Your task to perform on an android device: Go to CNN.com Image 0: 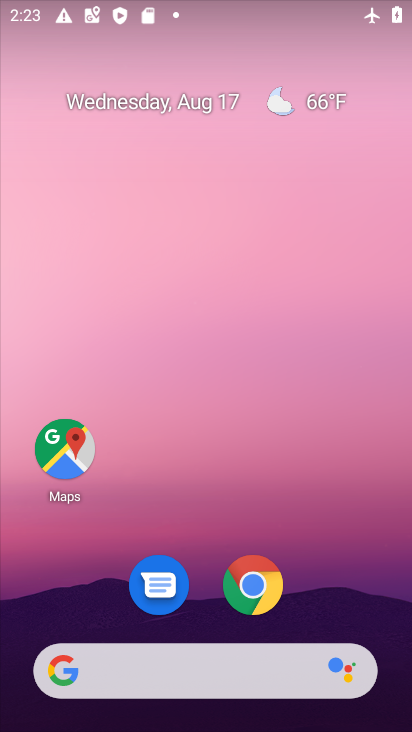
Step 0: click (227, 673)
Your task to perform on an android device: Go to CNN.com Image 1: 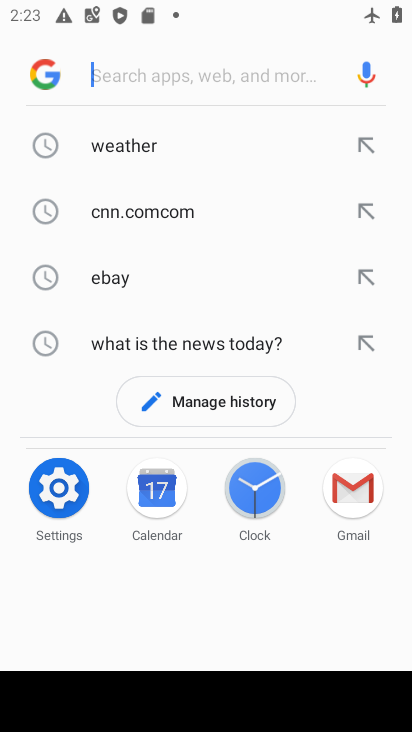
Step 1: type "cnn.com"
Your task to perform on an android device: Go to CNN.com Image 2: 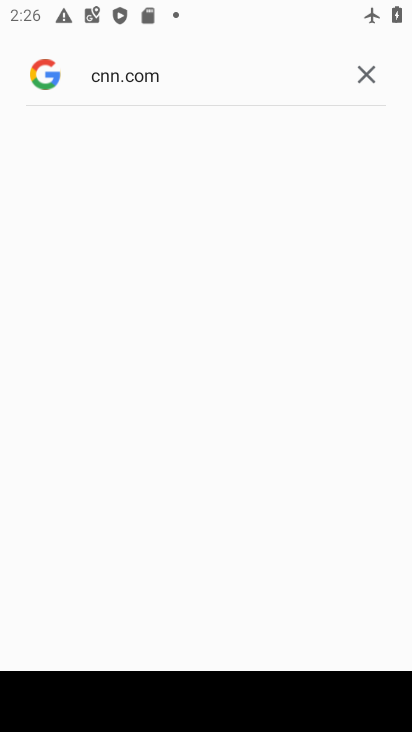
Step 2: task complete